Your task to perform on an android device: turn on javascript in the chrome app Image 0: 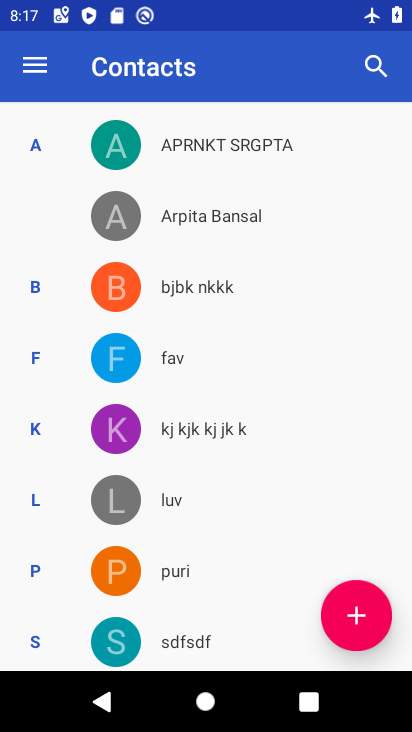
Step 0: press home button
Your task to perform on an android device: turn on javascript in the chrome app Image 1: 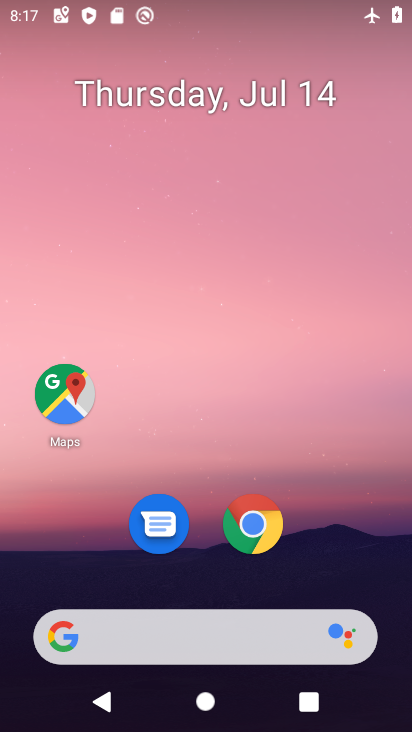
Step 1: click (256, 518)
Your task to perform on an android device: turn on javascript in the chrome app Image 2: 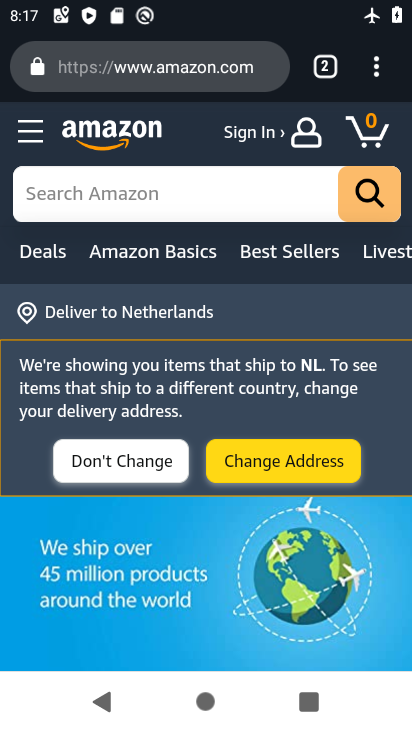
Step 2: click (378, 69)
Your task to perform on an android device: turn on javascript in the chrome app Image 3: 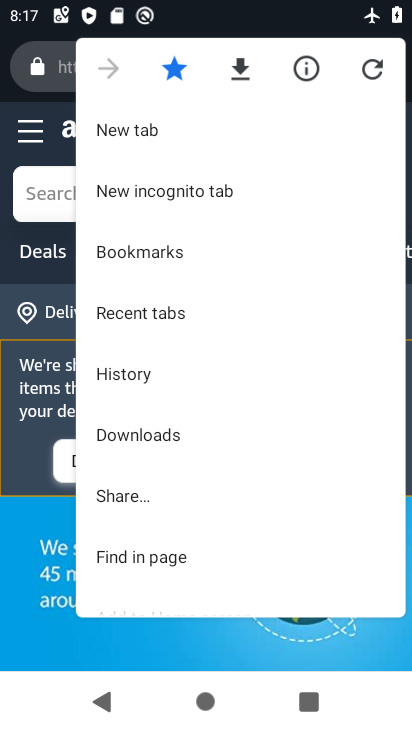
Step 3: drag from (218, 465) to (293, 88)
Your task to perform on an android device: turn on javascript in the chrome app Image 4: 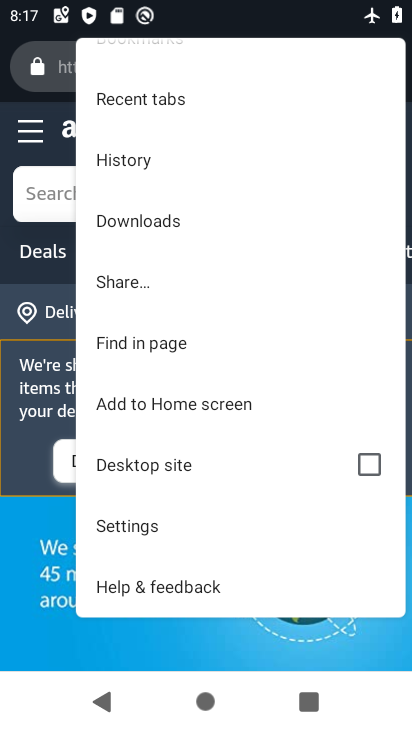
Step 4: click (121, 522)
Your task to perform on an android device: turn on javascript in the chrome app Image 5: 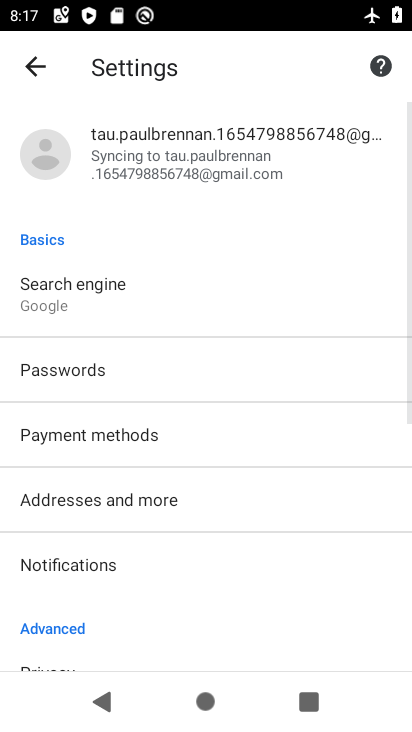
Step 5: drag from (214, 532) to (207, 229)
Your task to perform on an android device: turn on javascript in the chrome app Image 6: 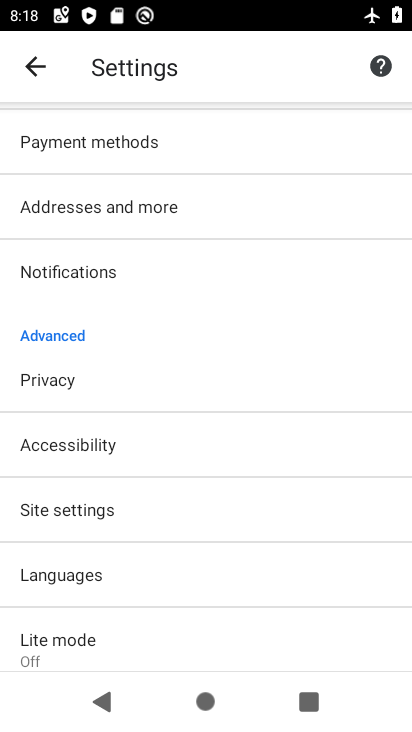
Step 6: click (98, 512)
Your task to perform on an android device: turn on javascript in the chrome app Image 7: 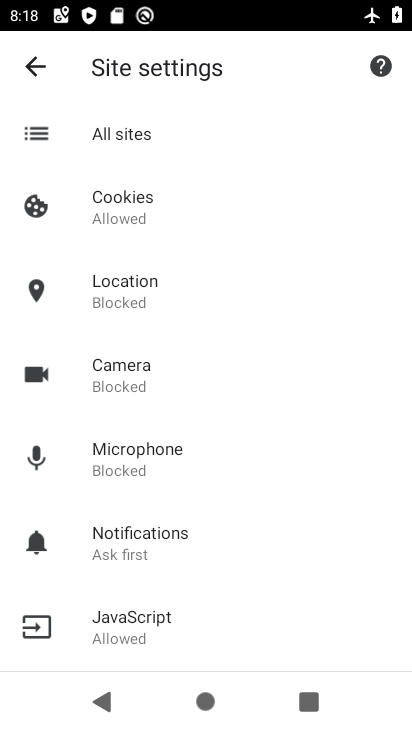
Step 7: click (125, 627)
Your task to perform on an android device: turn on javascript in the chrome app Image 8: 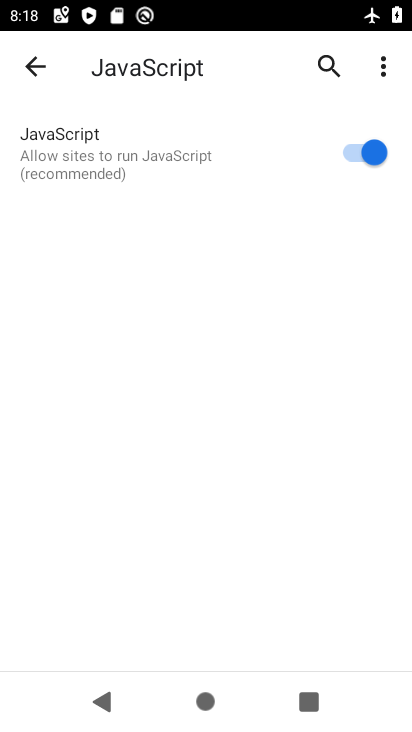
Step 8: task complete